Your task to perform on an android device: Open Google Image 0: 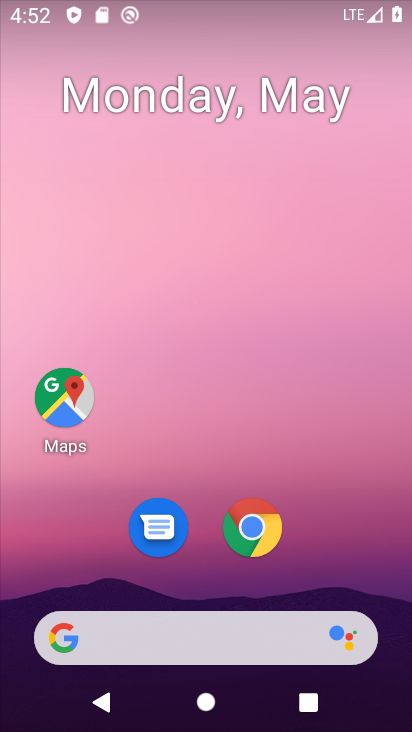
Step 0: drag from (397, 670) to (361, 160)
Your task to perform on an android device: Open Google Image 1: 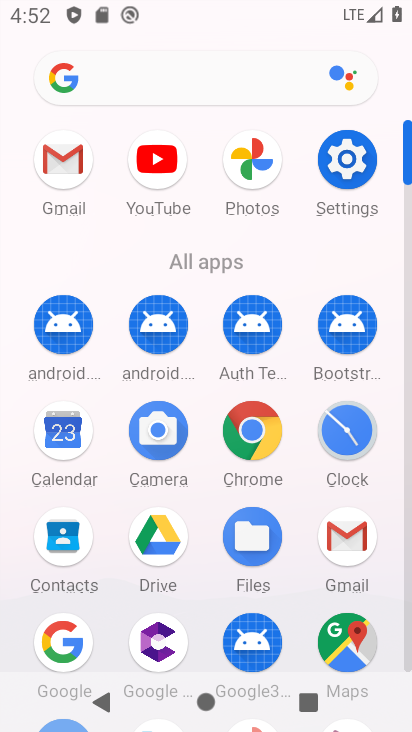
Step 1: click (77, 640)
Your task to perform on an android device: Open Google Image 2: 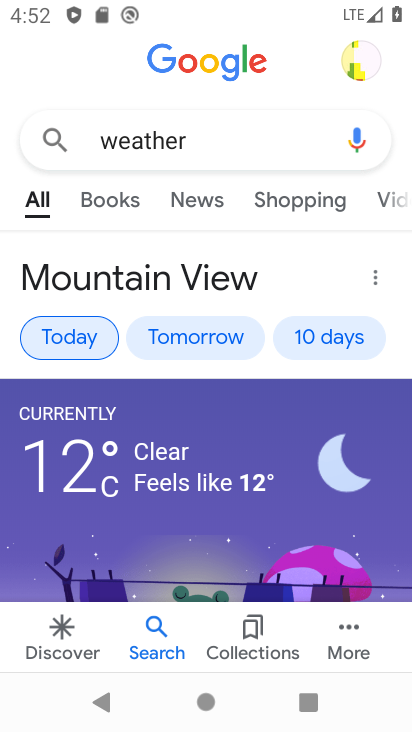
Step 2: task complete